Your task to perform on an android device: See recent photos Image 0: 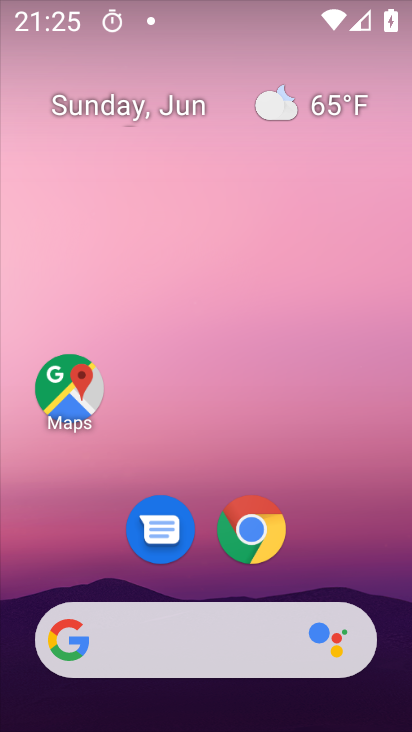
Step 0: drag from (319, 560) to (278, 51)
Your task to perform on an android device: See recent photos Image 1: 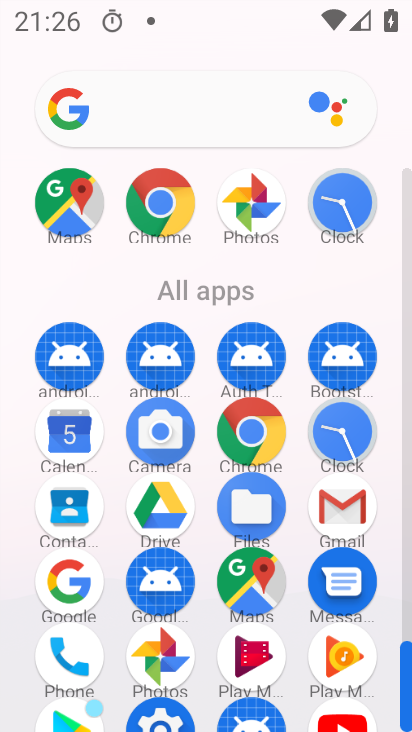
Step 1: click (256, 205)
Your task to perform on an android device: See recent photos Image 2: 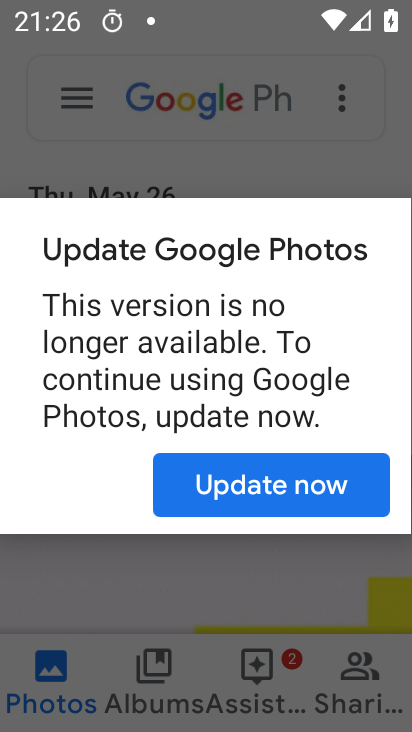
Step 2: click (239, 486)
Your task to perform on an android device: See recent photos Image 3: 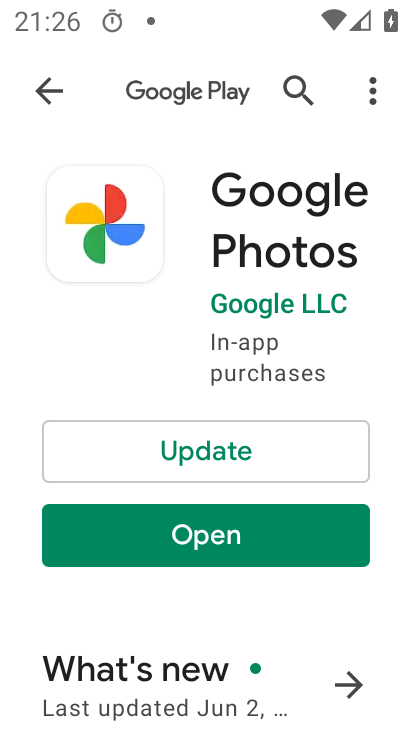
Step 3: click (222, 437)
Your task to perform on an android device: See recent photos Image 4: 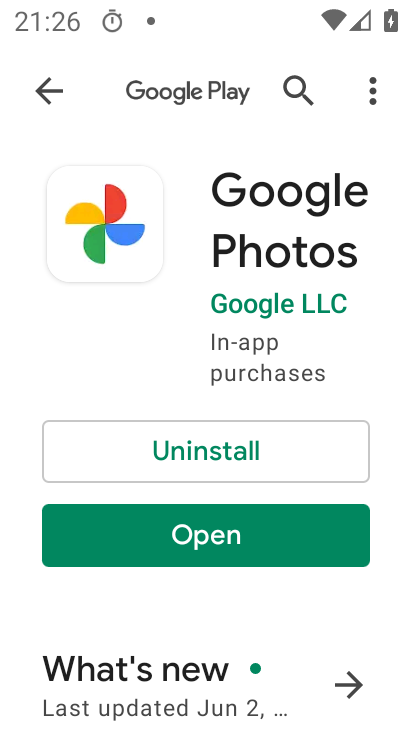
Step 4: click (115, 531)
Your task to perform on an android device: See recent photos Image 5: 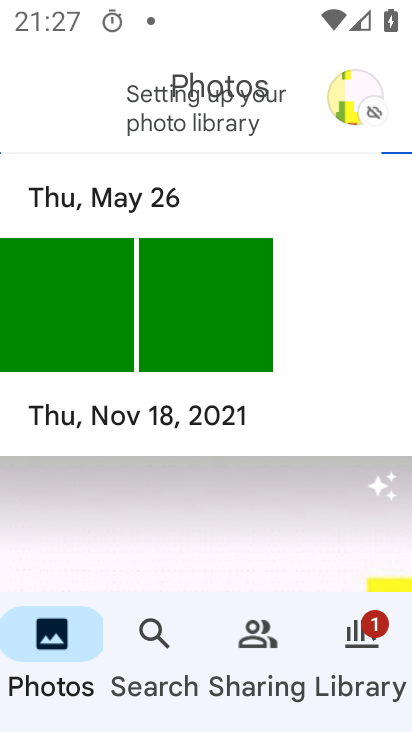
Step 5: task complete